Your task to perform on an android device: Open Android settings Image 0: 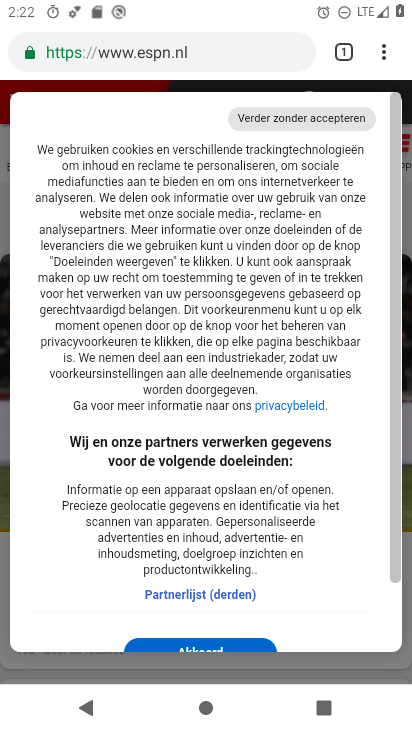
Step 0: press home button
Your task to perform on an android device: Open Android settings Image 1: 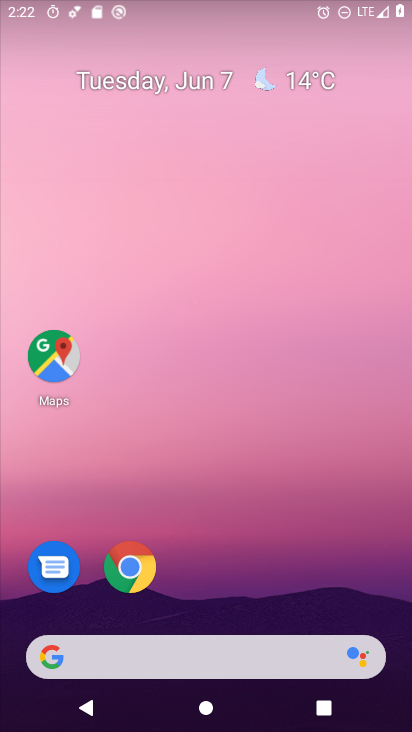
Step 1: drag from (373, 582) to (332, 6)
Your task to perform on an android device: Open Android settings Image 2: 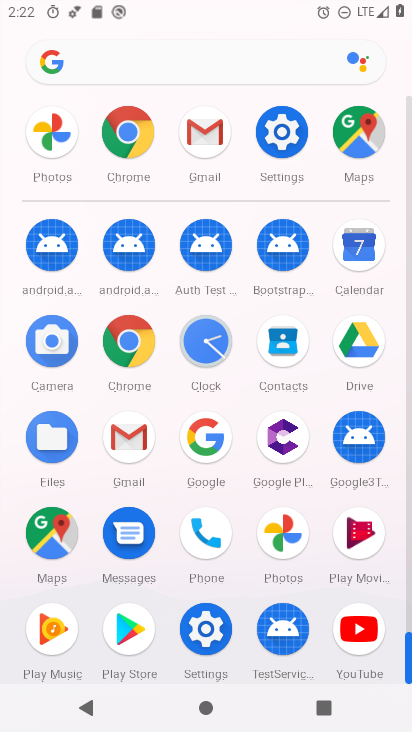
Step 2: click (280, 139)
Your task to perform on an android device: Open Android settings Image 3: 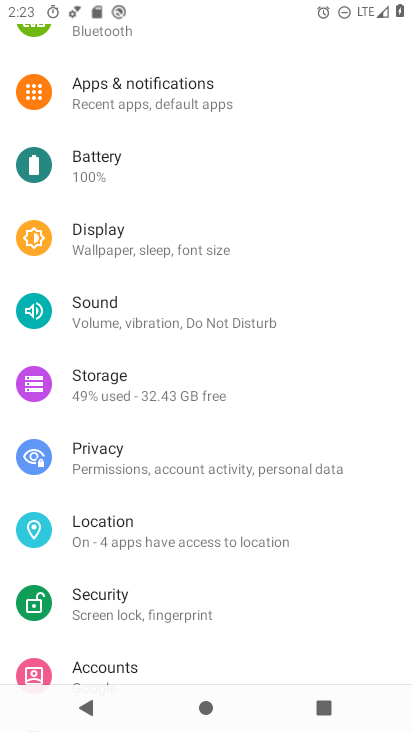
Step 3: task complete